Your task to perform on an android device: What's the weather going to be this weekend? Image 0: 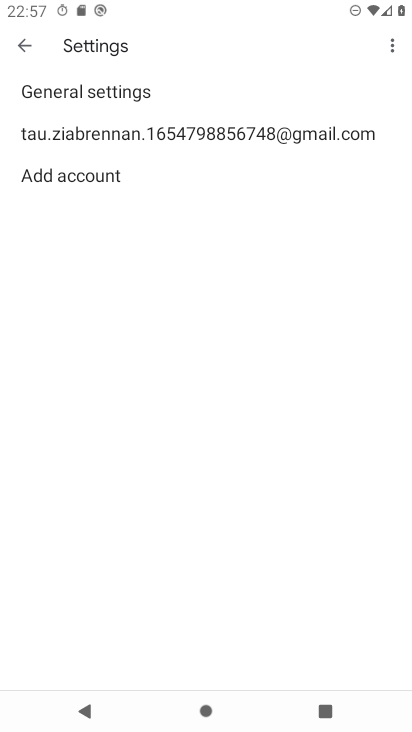
Step 0: press home button
Your task to perform on an android device: What's the weather going to be this weekend? Image 1: 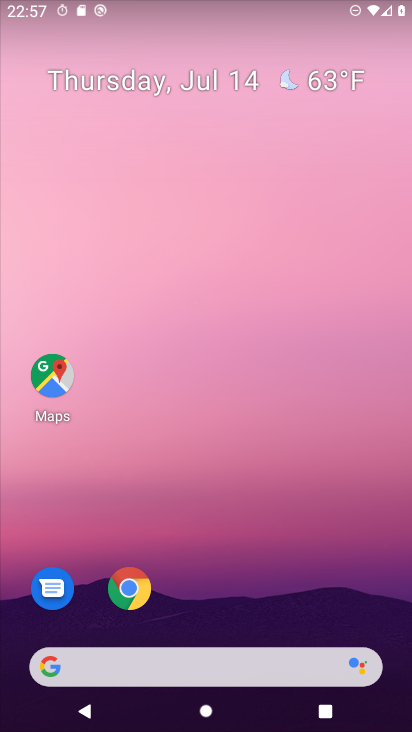
Step 1: click (217, 664)
Your task to perform on an android device: What's the weather going to be this weekend? Image 2: 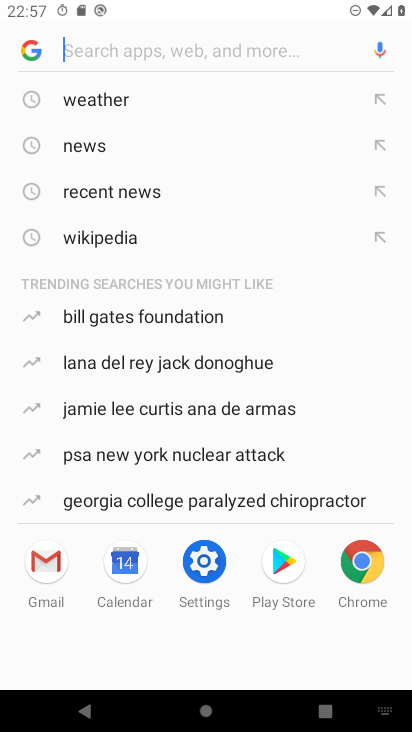
Step 2: click (145, 105)
Your task to perform on an android device: What's the weather going to be this weekend? Image 3: 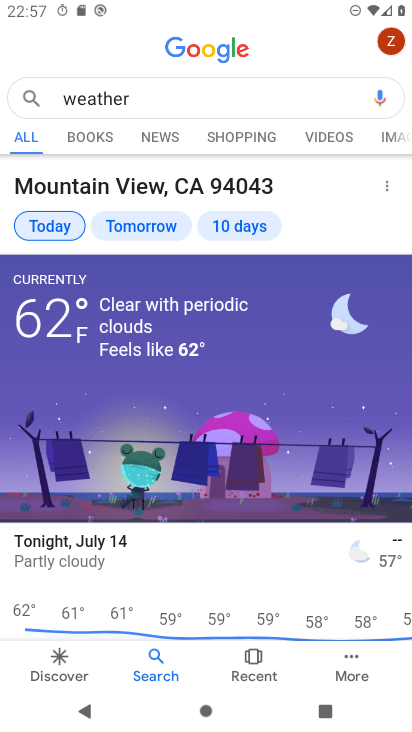
Step 3: click (256, 225)
Your task to perform on an android device: What's the weather going to be this weekend? Image 4: 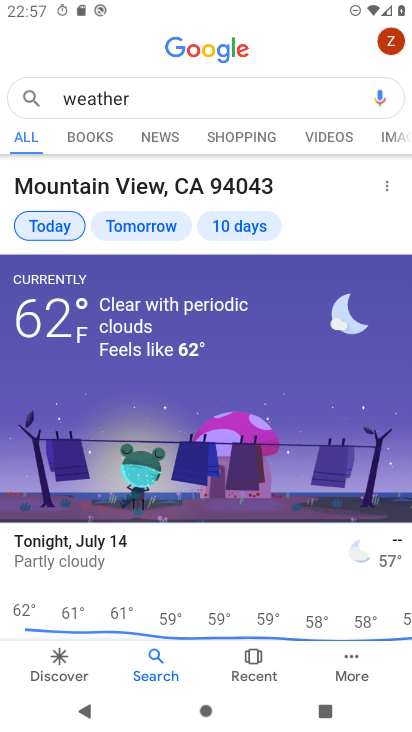
Step 4: click (256, 225)
Your task to perform on an android device: What's the weather going to be this weekend? Image 5: 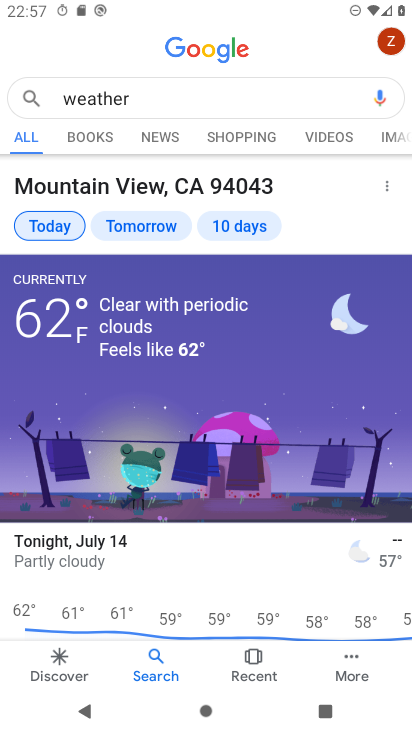
Step 5: click (256, 225)
Your task to perform on an android device: What's the weather going to be this weekend? Image 6: 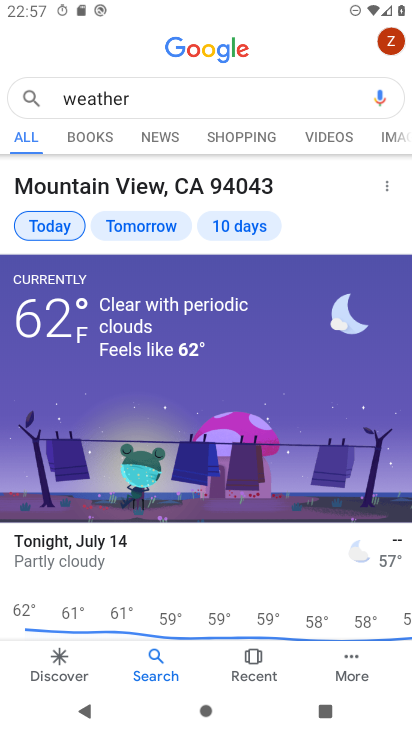
Step 6: task complete